Your task to perform on an android device: Open Maps and search for coffee Image 0: 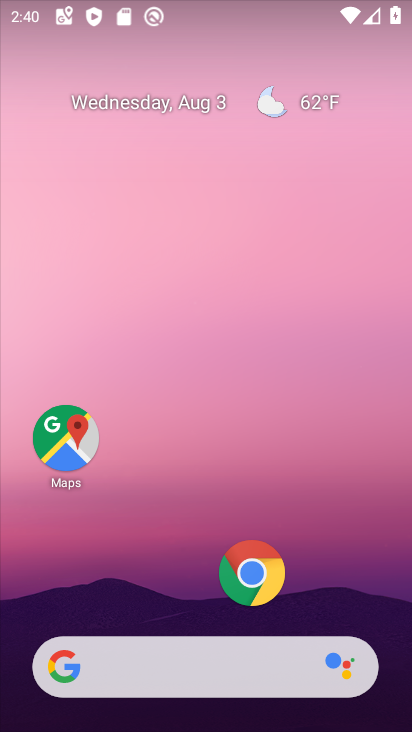
Step 0: click (77, 434)
Your task to perform on an android device: Open Maps and search for coffee Image 1: 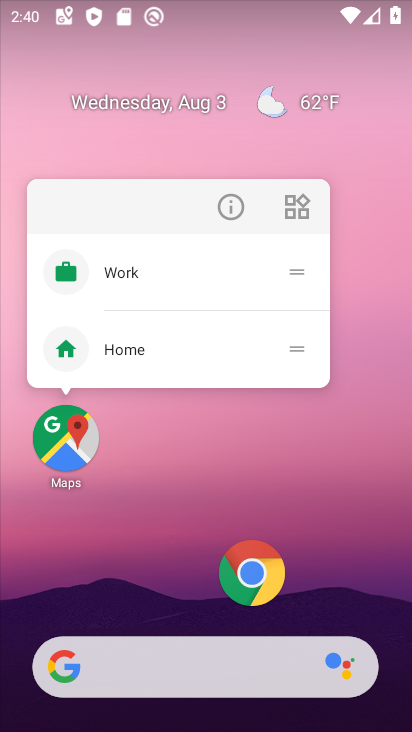
Step 1: click (62, 444)
Your task to perform on an android device: Open Maps and search for coffee Image 2: 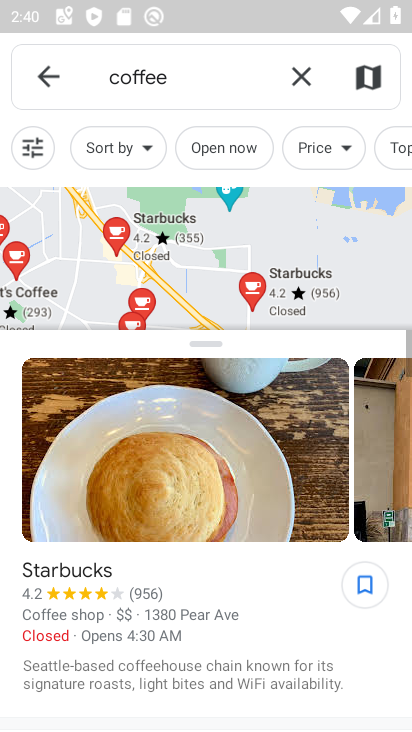
Step 2: task complete